Your task to perform on an android device: turn notification dots off Image 0: 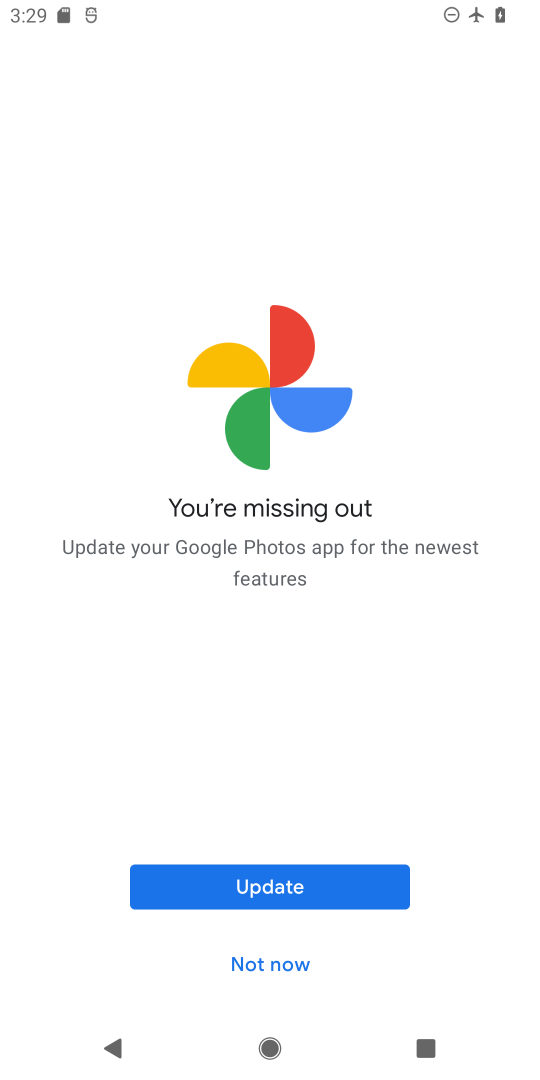
Step 0: press back button
Your task to perform on an android device: turn notification dots off Image 1: 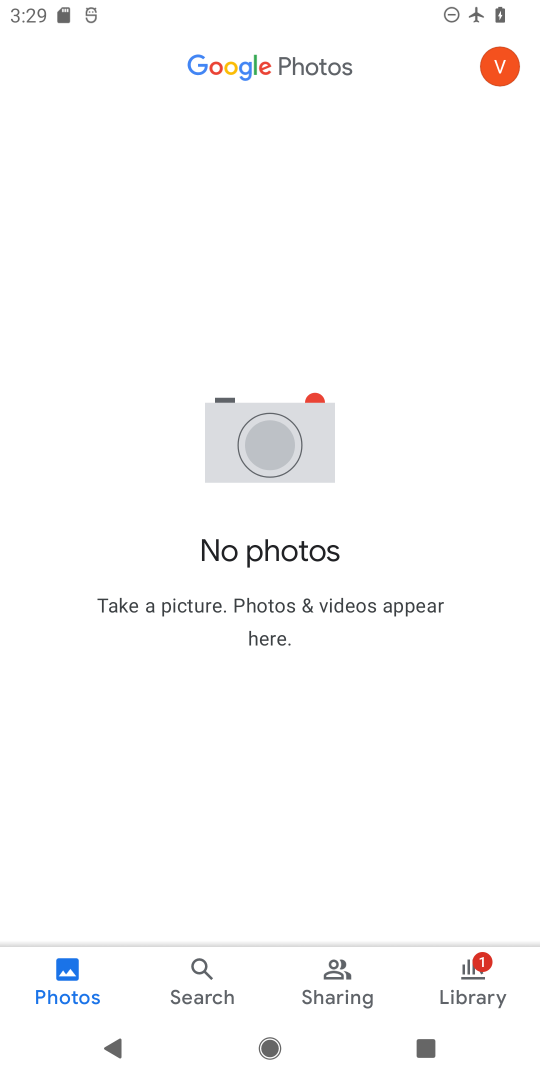
Step 1: press home button
Your task to perform on an android device: turn notification dots off Image 2: 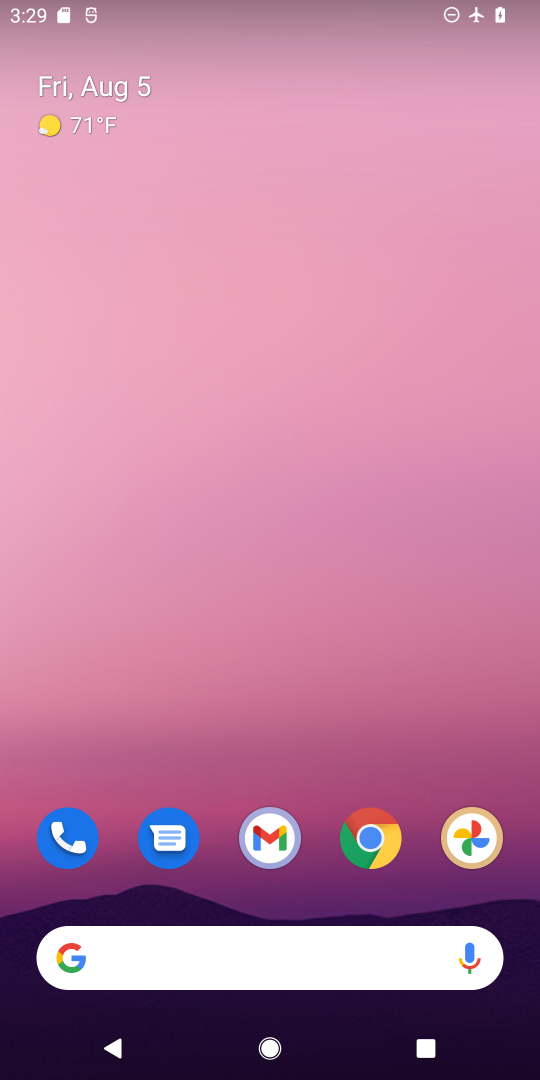
Step 2: drag from (423, 768) to (341, 79)
Your task to perform on an android device: turn notification dots off Image 3: 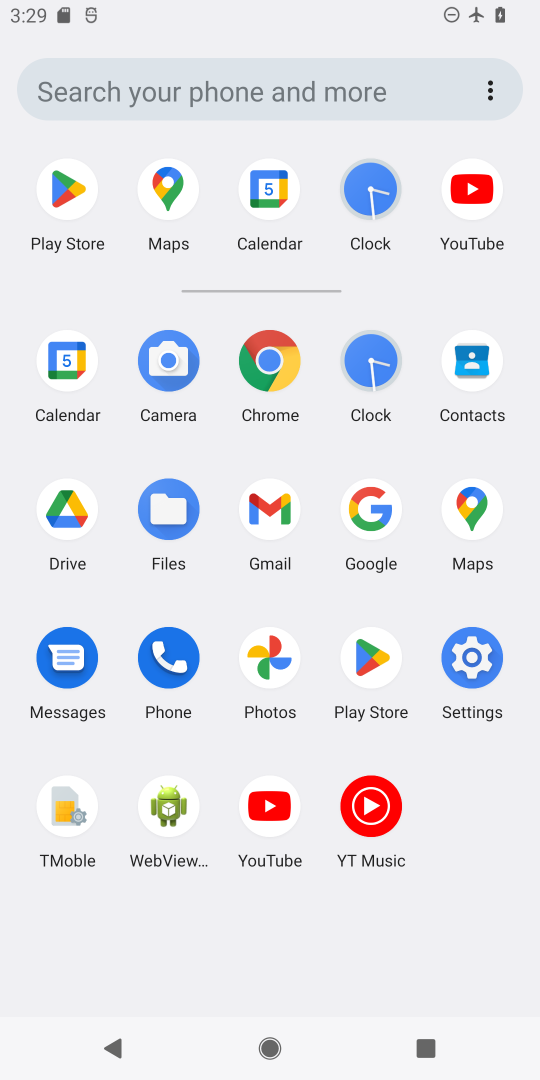
Step 3: click (439, 660)
Your task to perform on an android device: turn notification dots off Image 4: 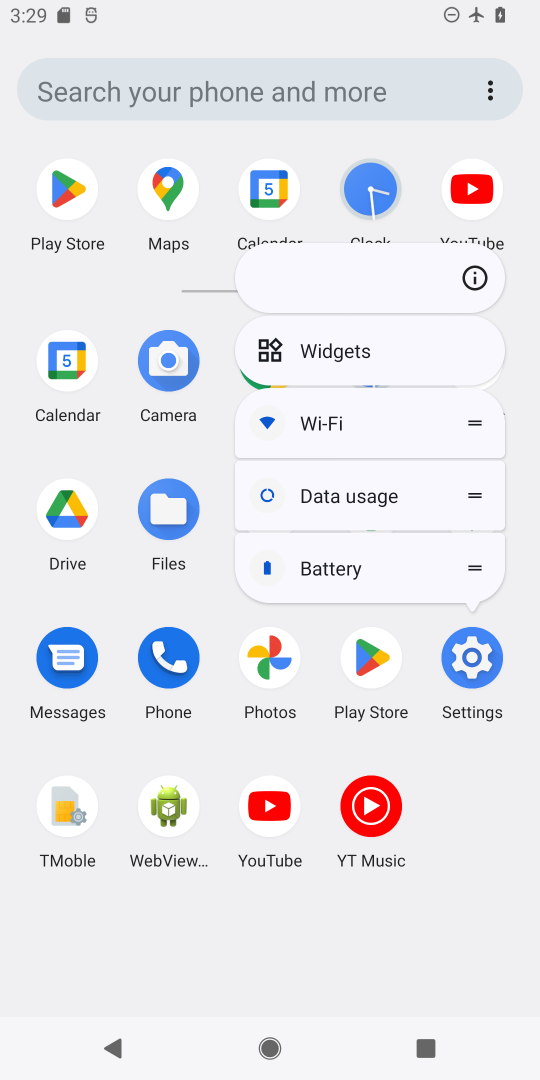
Step 4: click (460, 660)
Your task to perform on an android device: turn notification dots off Image 5: 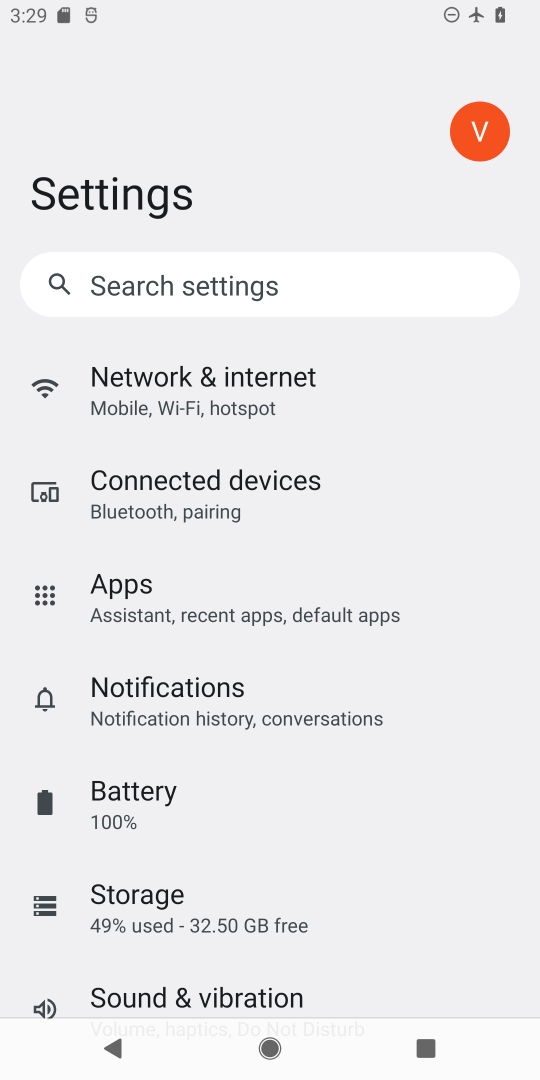
Step 5: click (353, 697)
Your task to perform on an android device: turn notification dots off Image 6: 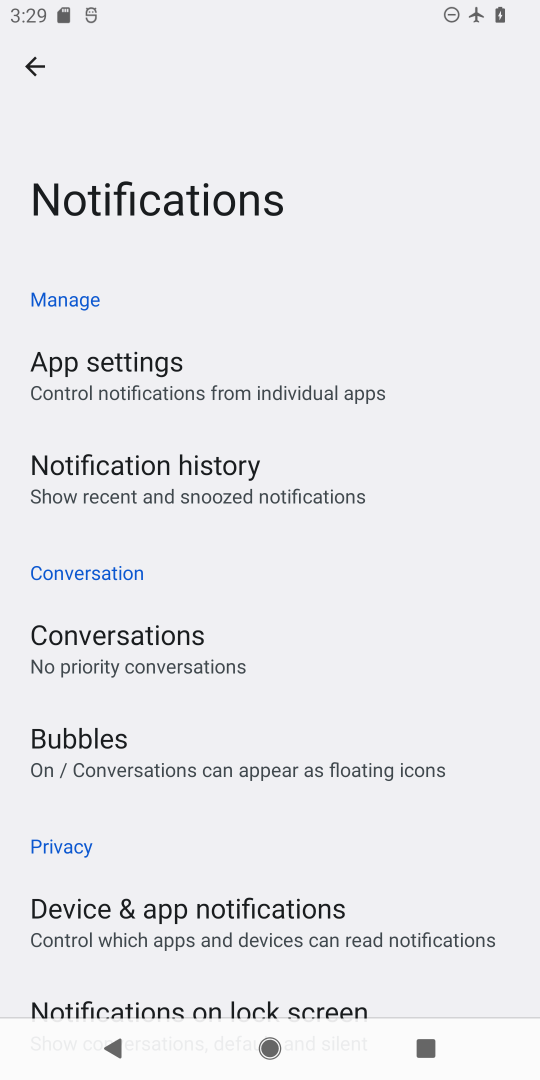
Step 6: drag from (396, 949) to (345, 281)
Your task to perform on an android device: turn notification dots off Image 7: 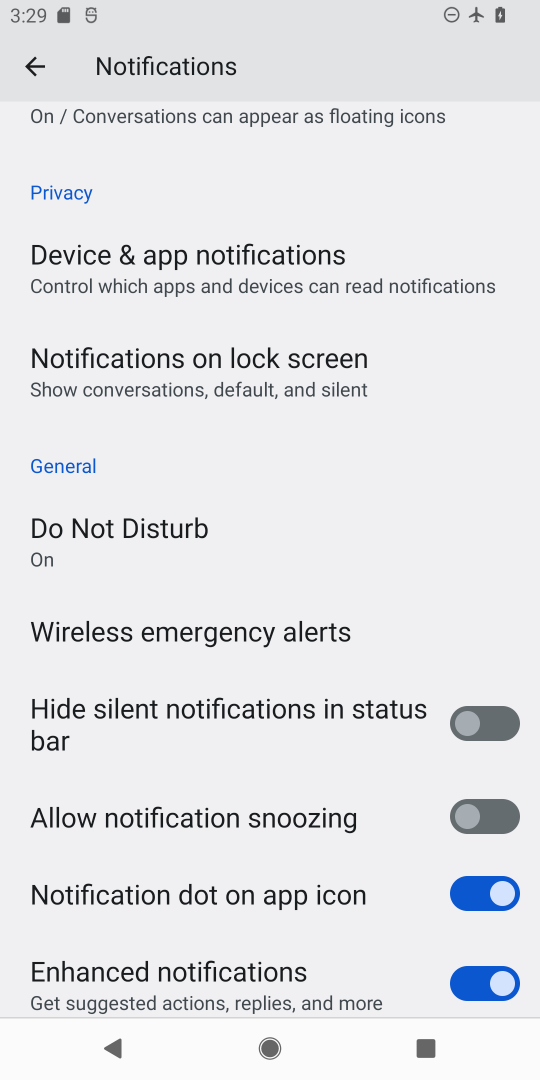
Step 7: drag from (391, 890) to (381, 530)
Your task to perform on an android device: turn notification dots off Image 8: 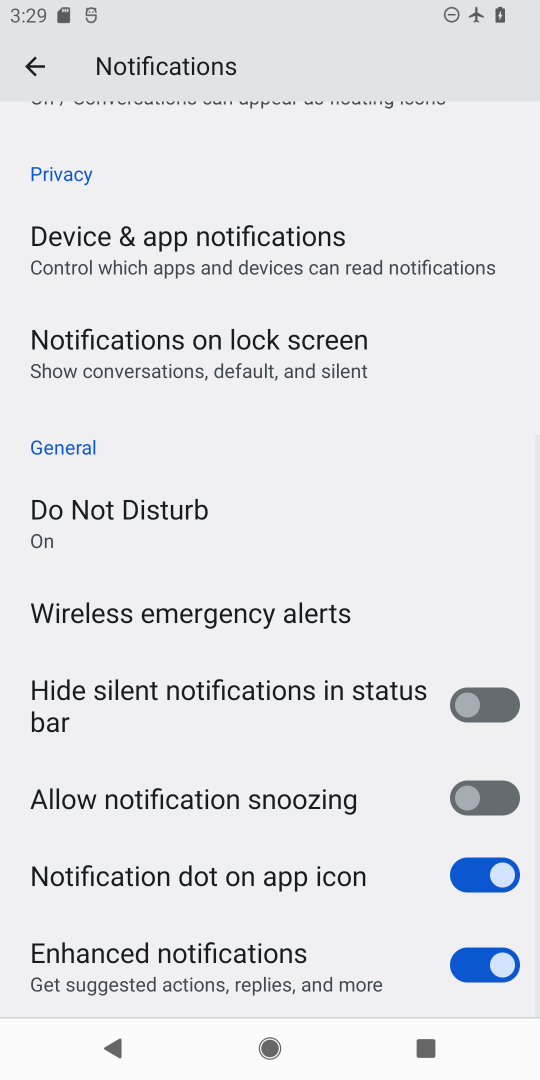
Step 8: click (497, 886)
Your task to perform on an android device: turn notification dots off Image 9: 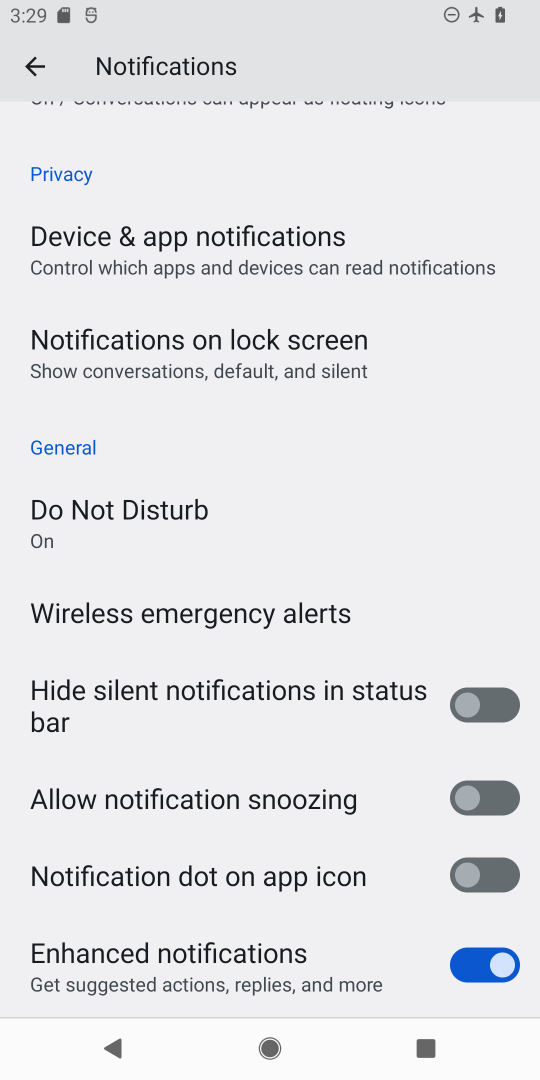
Step 9: task complete